Your task to perform on an android device: Open the web browser Image 0: 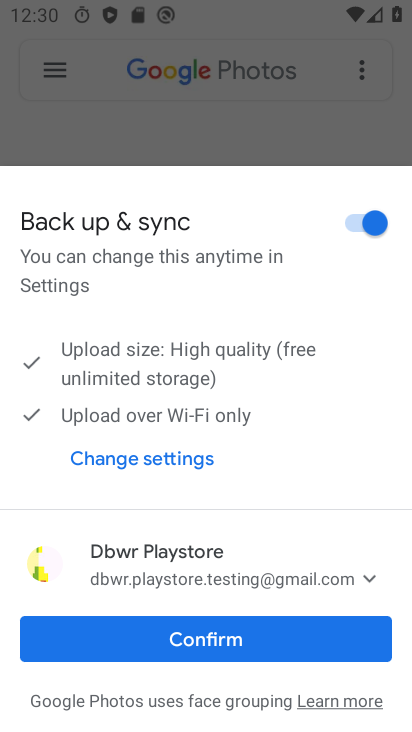
Step 0: press back button
Your task to perform on an android device: Open the web browser Image 1: 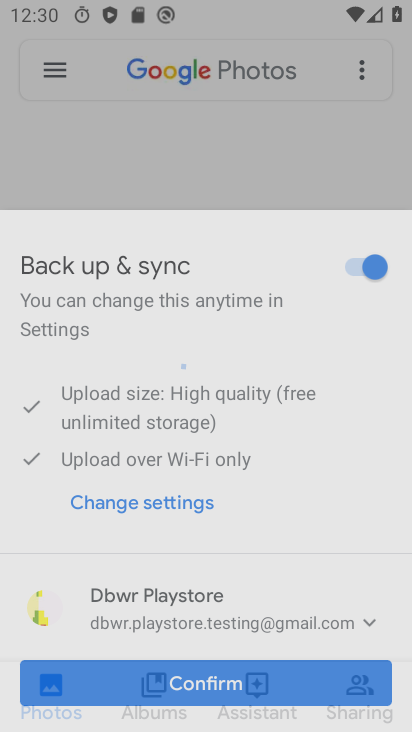
Step 1: press back button
Your task to perform on an android device: Open the web browser Image 2: 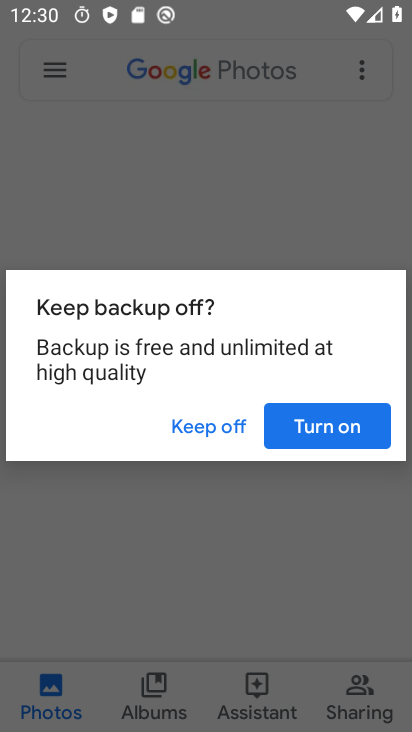
Step 2: press home button
Your task to perform on an android device: Open the web browser Image 3: 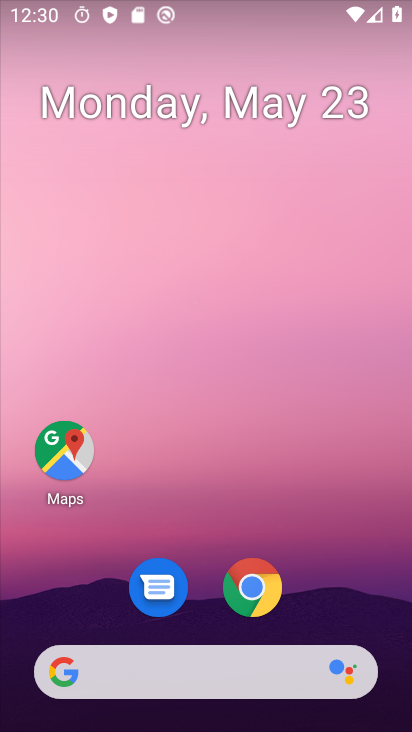
Step 3: click (247, 578)
Your task to perform on an android device: Open the web browser Image 4: 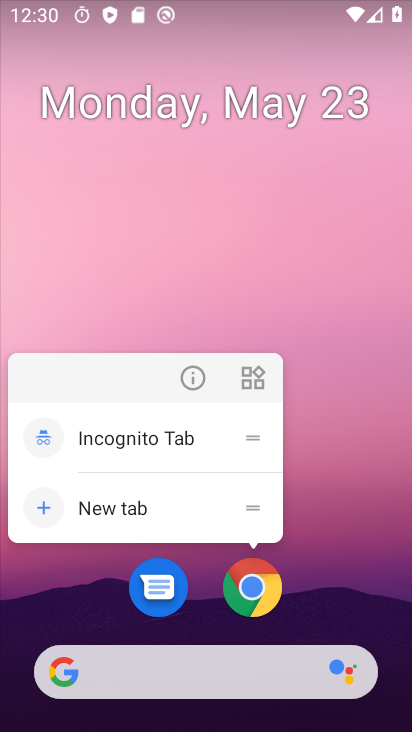
Step 4: click (256, 582)
Your task to perform on an android device: Open the web browser Image 5: 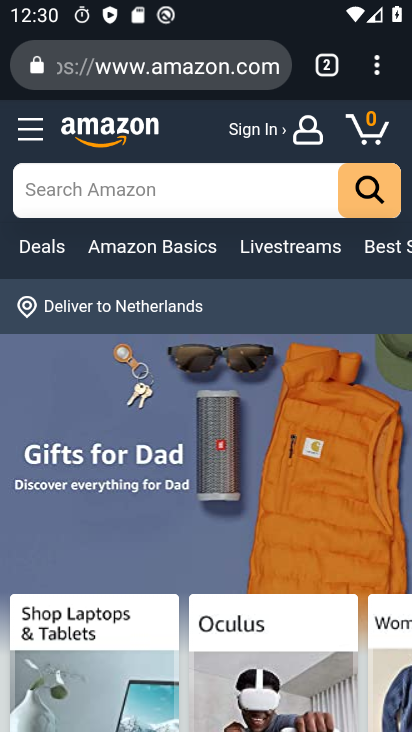
Step 5: task complete